Your task to perform on an android device: Open Google Chrome Image 0: 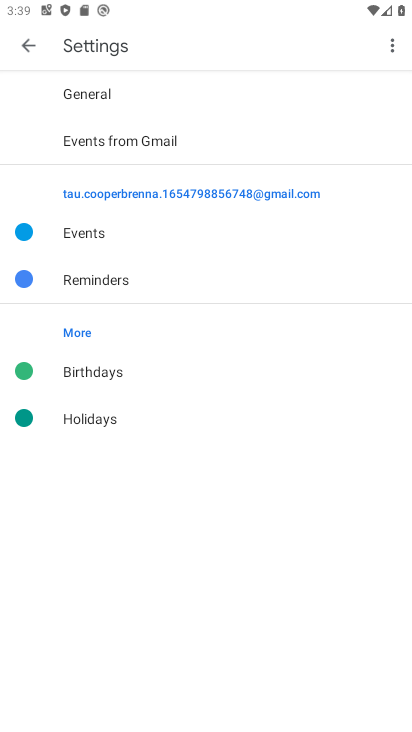
Step 0: press home button
Your task to perform on an android device: Open Google Chrome Image 1: 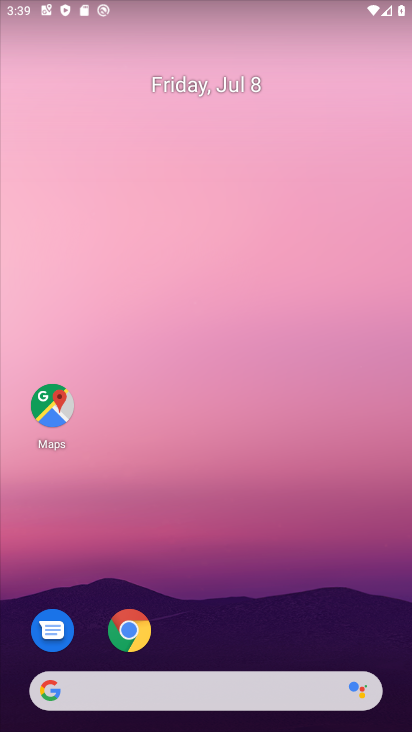
Step 1: click (123, 617)
Your task to perform on an android device: Open Google Chrome Image 2: 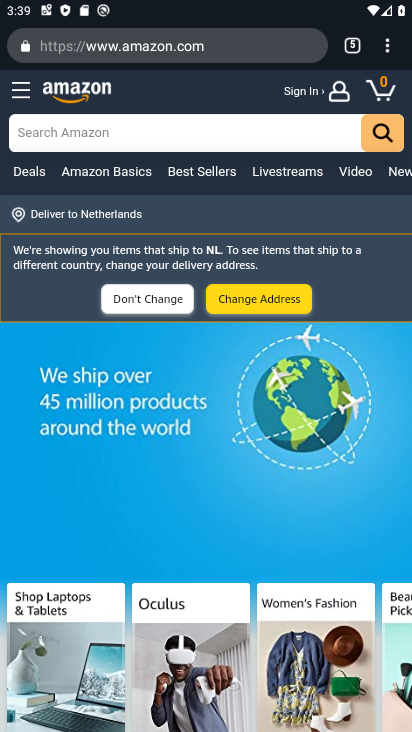
Step 2: task complete